Your task to perform on an android device: manage bookmarks in the chrome app Image 0: 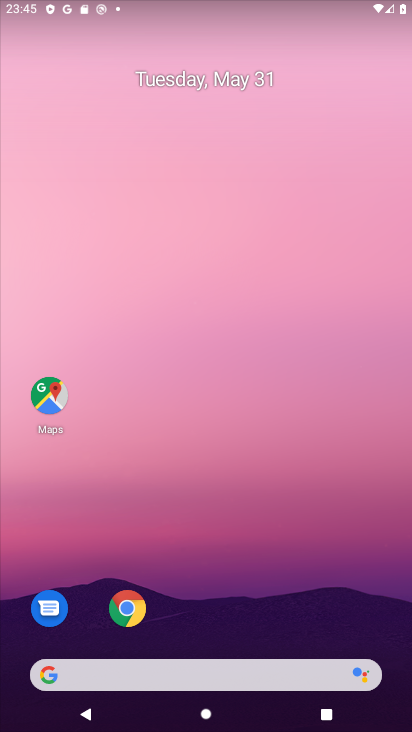
Step 0: click (151, 605)
Your task to perform on an android device: manage bookmarks in the chrome app Image 1: 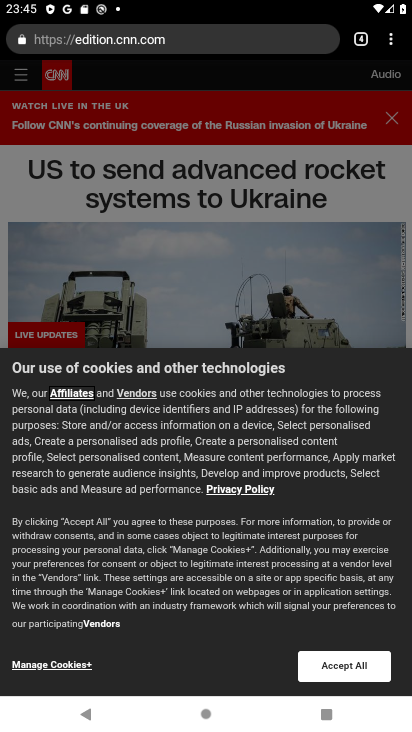
Step 1: drag from (386, 42) to (297, 145)
Your task to perform on an android device: manage bookmarks in the chrome app Image 2: 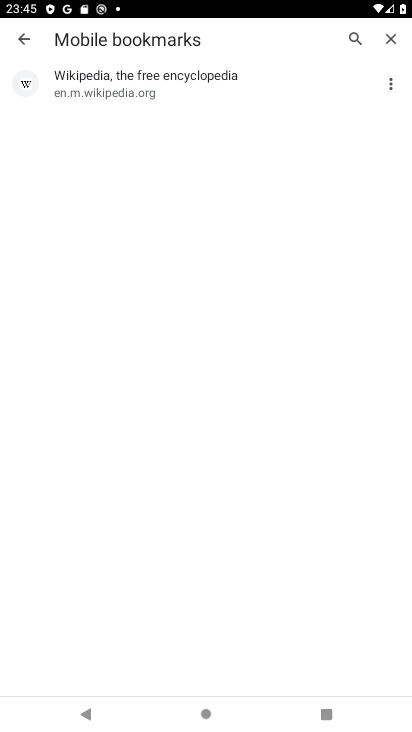
Step 2: click (299, 92)
Your task to perform on an android device: manage bookmarks in the chrome app Image 3: 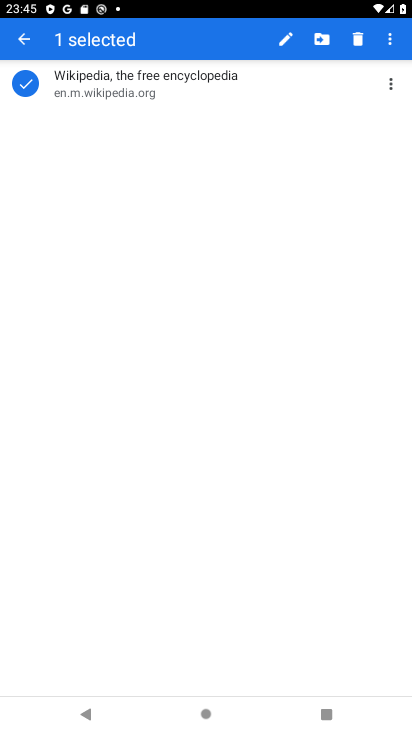
Step 3: click (359, 37)
Your task to perform on an android device: manage bookmarks in the chrome app Image 4: 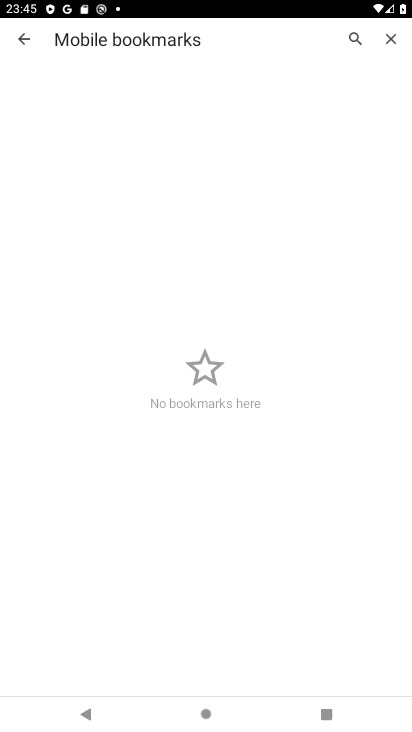
Step 4: task complete